Your task to perform on an android device: Search for Mexican restaurants on Maps Image 0: 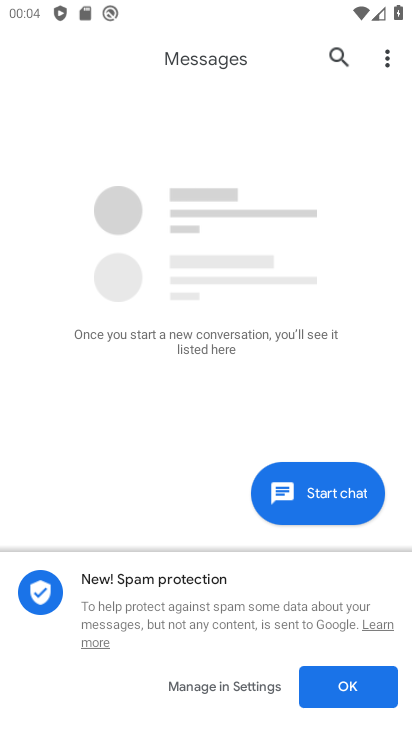
Step 0: press home button
Your task to perform on an android device: Search for Mexican restaurants on Maps Image 1: 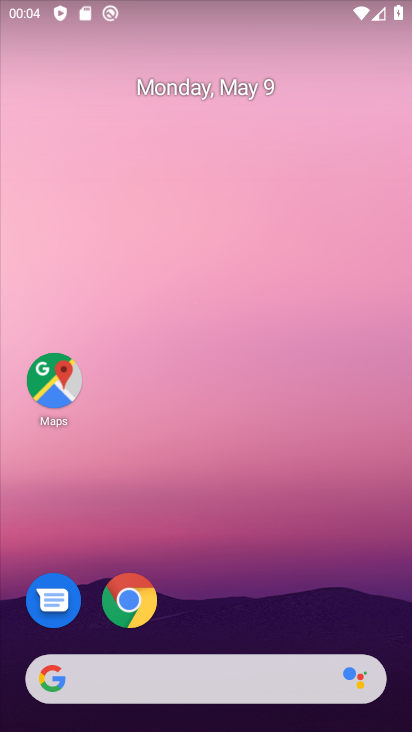
Step 1: click (39, 384)
Your task to perform on an android device: Search for Mexican restaurants on Maps Image 2: 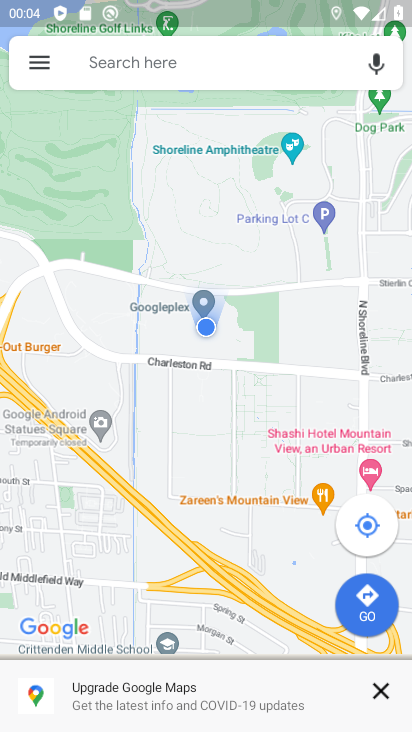
Step 2: click (181, 53)
Your task to perform on an android device: Search for Mexican restaurants on Maps Image 3: 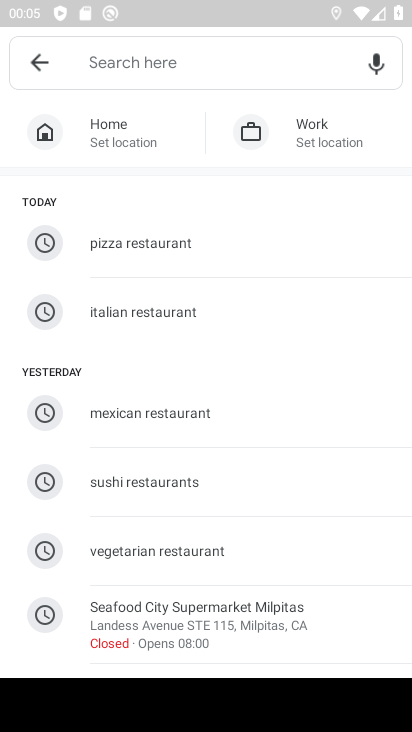
Step 3: click (196, 404)
Your task to perform on an android device: Search for Mexican restaurants on Maps Image 4: 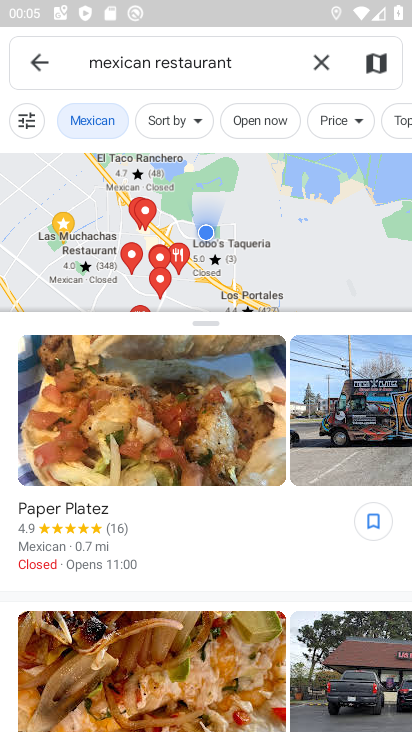
Step 4: task complete